Your task to perform on an android device: Is it going to rain tomorrow? Image 0: 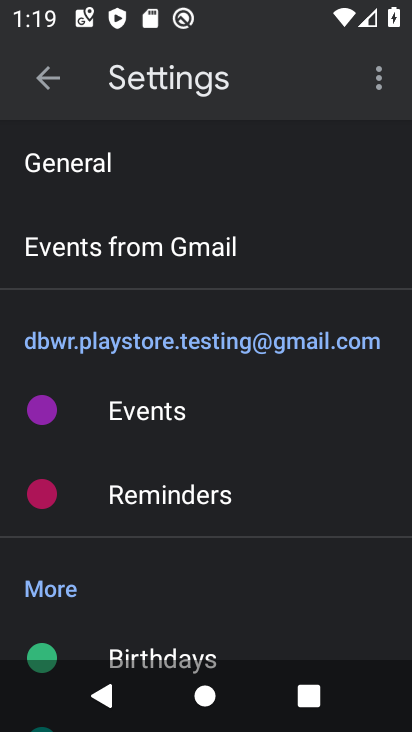
Step 0: press home button
Your task to perform on an android device: Is it going to rain tomorrow? Image 1: 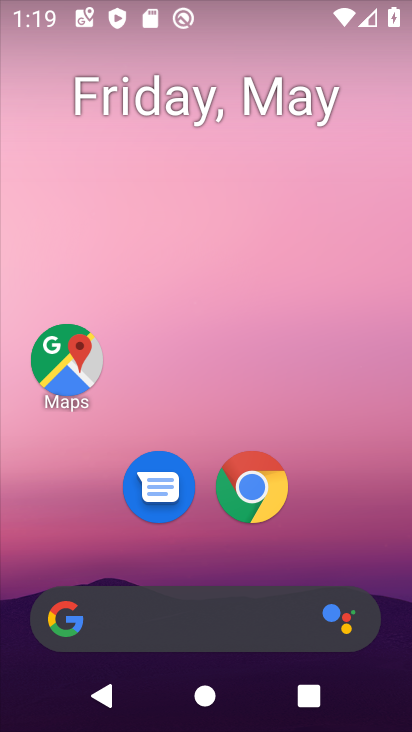
Step 1: click (207, 629)
Your task to perform on an android device: Is it going to rain tomorrow? Image 2: 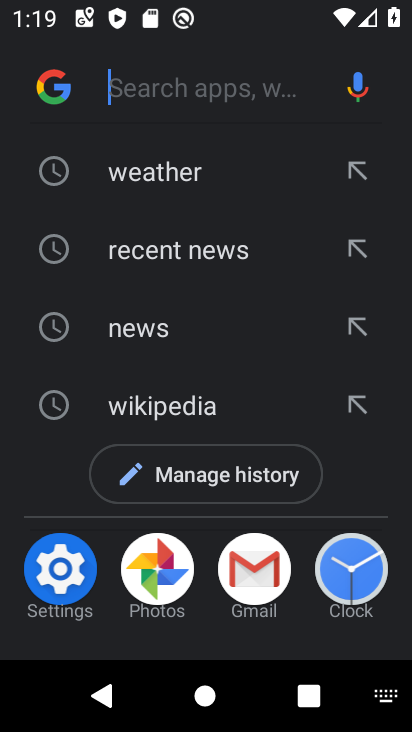
Step 2: click (231, 189)
Your task to perform on an android device: Is it going to rain tomorrow? Image 3: 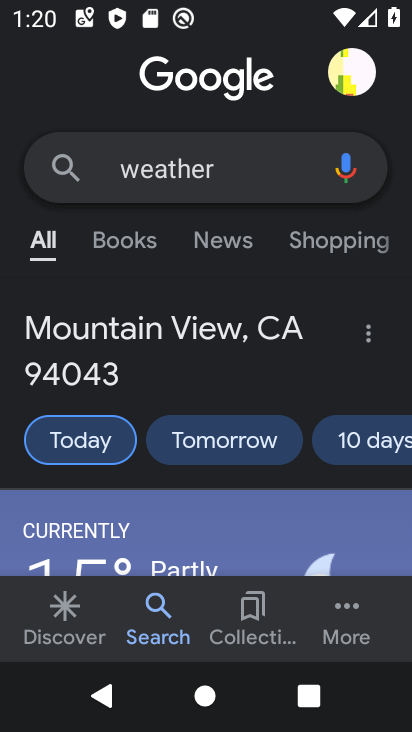
Step 3: click (223, 429)
Your task to perform on an android device: Is it going to rain tomorrow? Image 4: 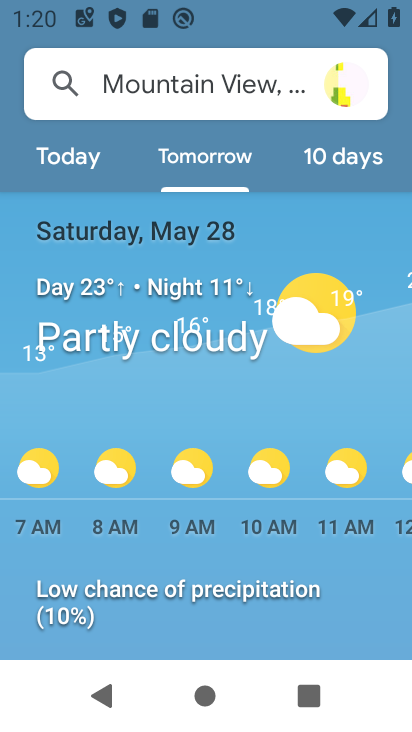
Step 4: task complete